Your task to perform on an android device: Go to wifi settings Image 0: 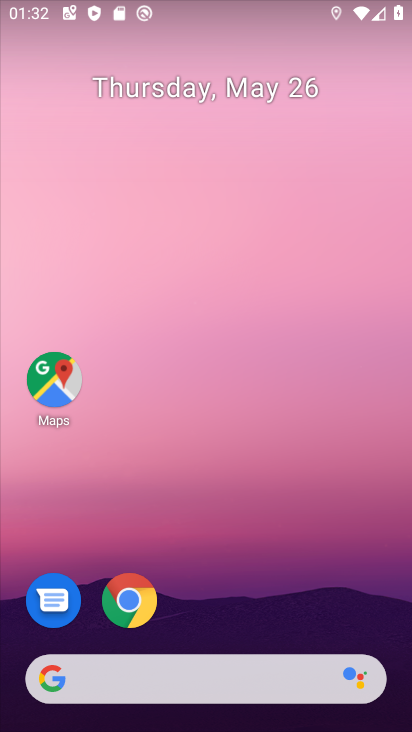
Step 0: drag from (240, 535) to (272, 139)
Your task to perform on an android device: Go to wifi settings Image 1: 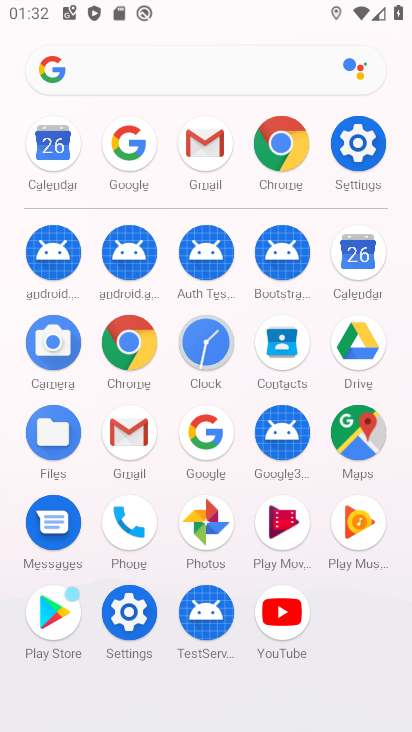
Step 1: click (375, 154)
Your task to perform on an android device: Go to wifi settings Image 2: 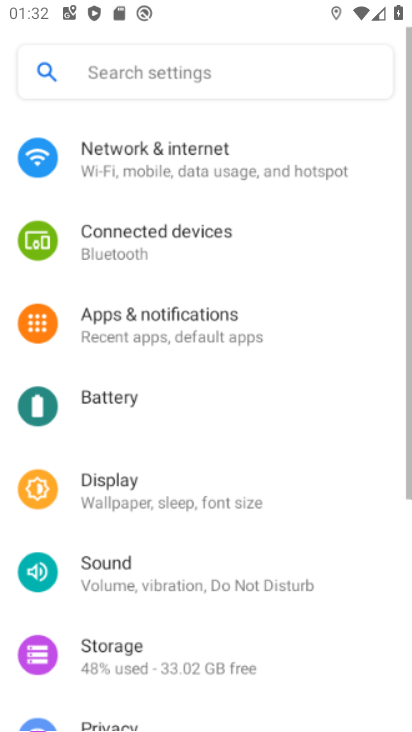
Step 2: click (365, 150)
Your task to perform on an android device: Go to wifi settings Image 3: 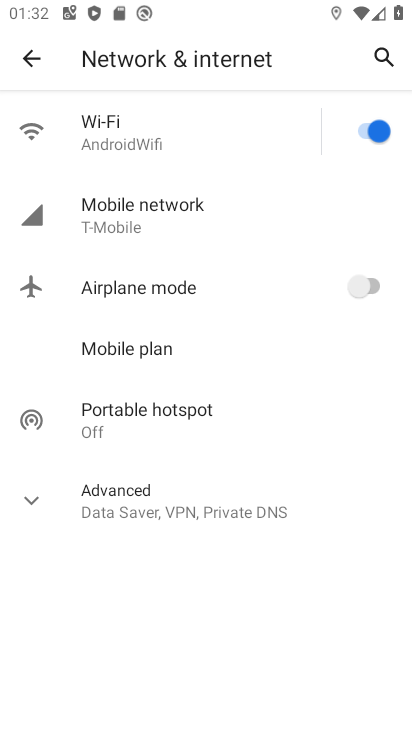
Step 3: click (77, 116)
Your task to perform on an android device: Go to wifi settings Image 4: 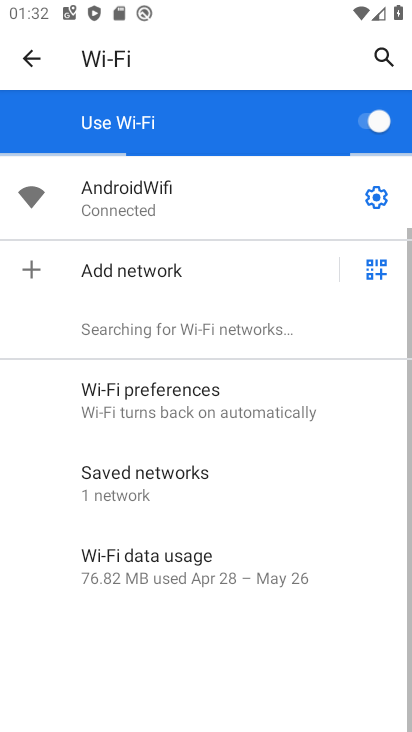
Step 4: task complete